Your task to perform on an android device: turn off picture-in-picture Image 0: 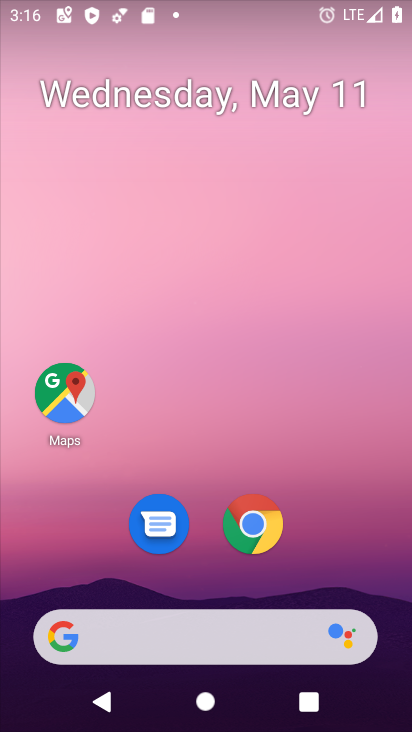
Step 0: click (262, 511)
Your task to perform on an android device: turn off picture-in-picture Image 1: 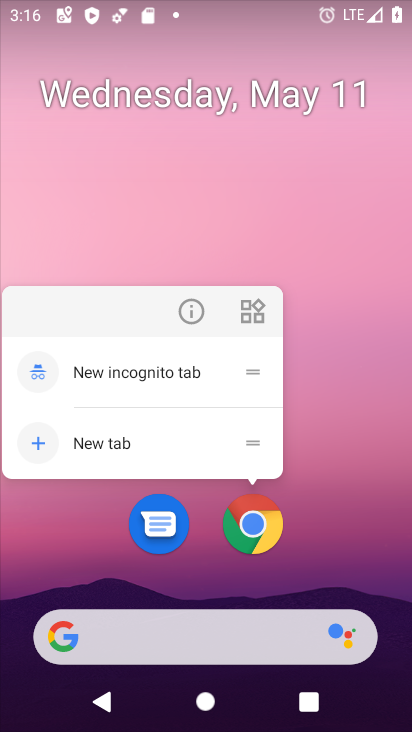
Step 1: click (193, 301)
Your task to perform on an android device: turn off picture-in-picture Image 2: 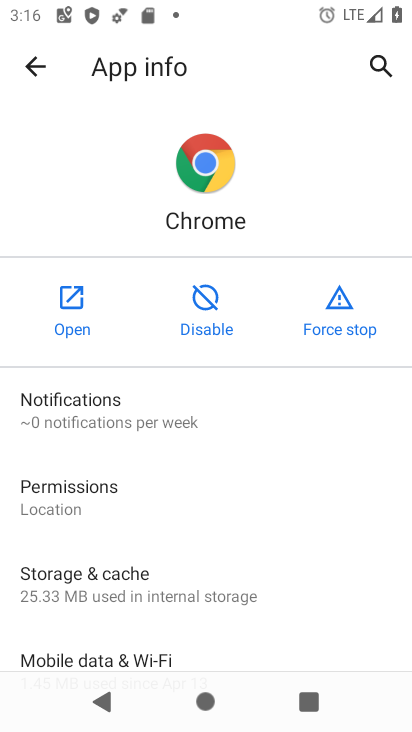
Step 2: drag from (205, 533) to (220, 117)
Your task to perform on an android device: turn off picture-in-picture Image 3: 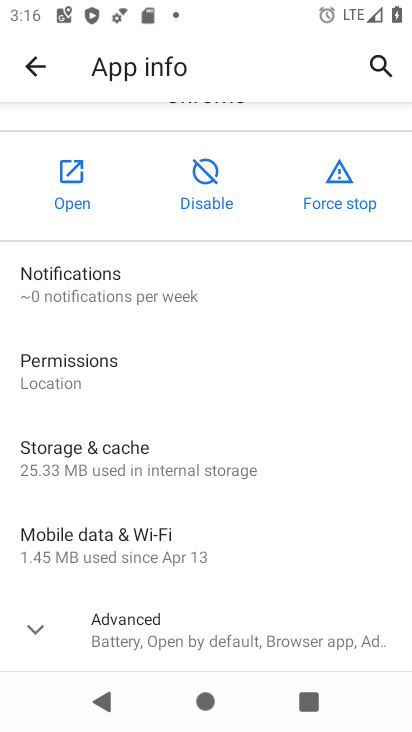
Step 3: click (31, 627)
Your task to perform on an android device: turn off picture-in-picture Image 4: 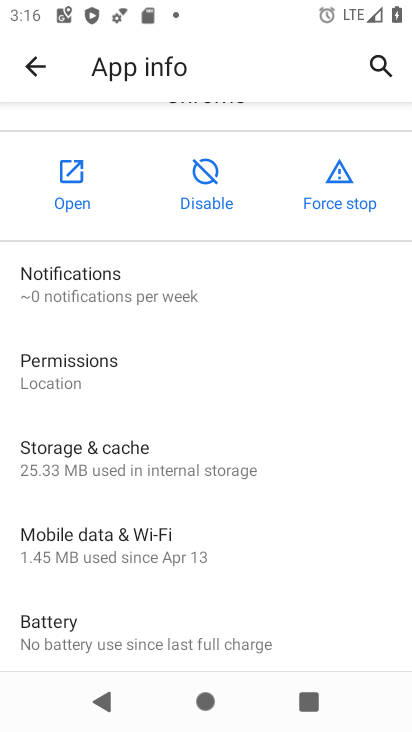
Step 4: drag from (285, 494) to (282, 193)
Your task to perform on an android device: turn off picture-in-picture Image 5: 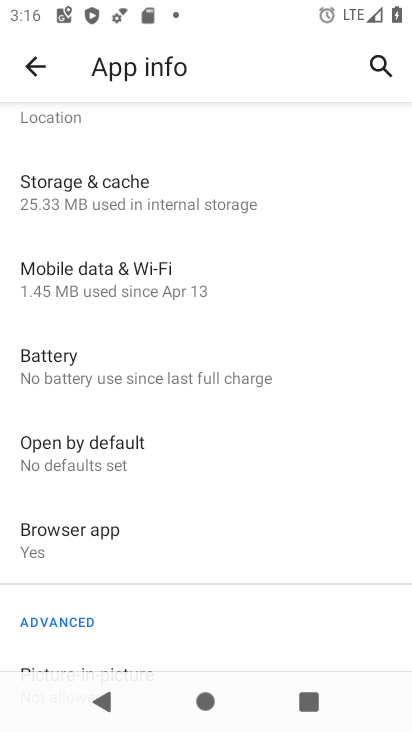
Step 5: drag from (214, 408) to (233, 140)
Your task to perform on an android device: turn off picture-in-picture Image 6: 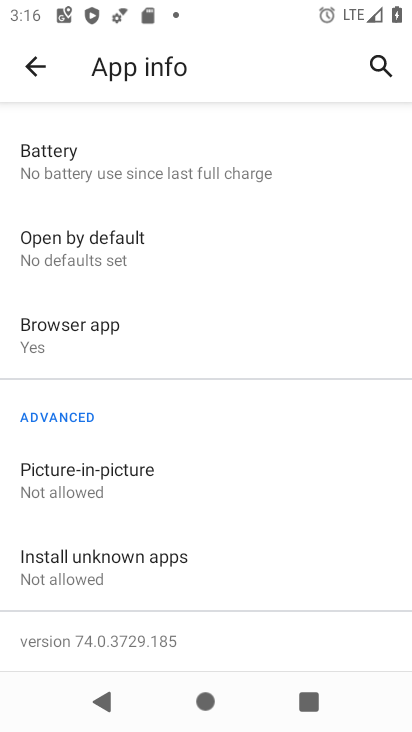
Step 6: click (110, 480)
Your task to perform on an android device: turn off picture-in-picture Image 7: 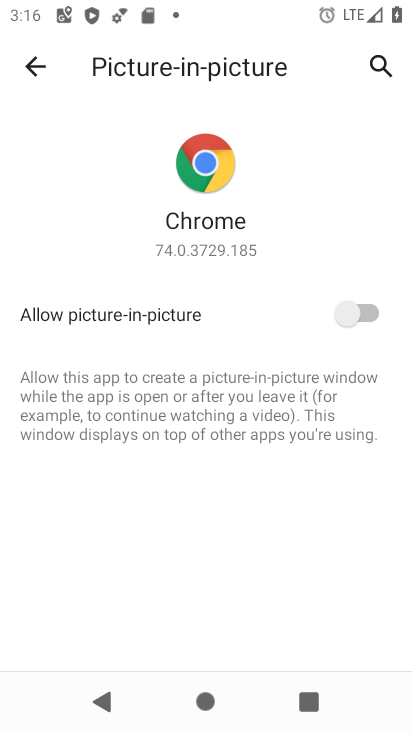
Step 7: task complete